Your task to perform on an android device: install app "Roku - Official Remote Control" Image 0: 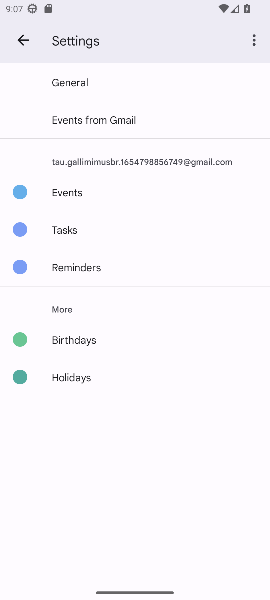
Step 0: press home button
Your task to perform on an android device: install app "Roku - Official Remote Control" Image 1: 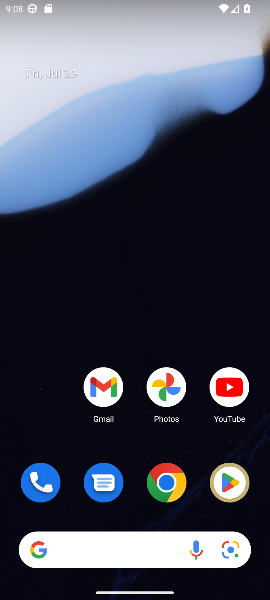
Step 1: click (226, 482)
Your task to perform on an android device: install app "Roku - Official Remote Control" Image 2: 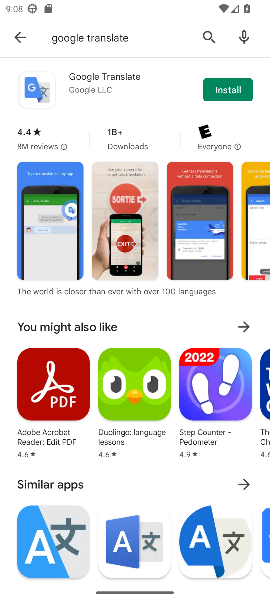
Step 2: click (206, 34)
Your task to perform on an android device: install app "Roku - Official Remote Control" Image 3: 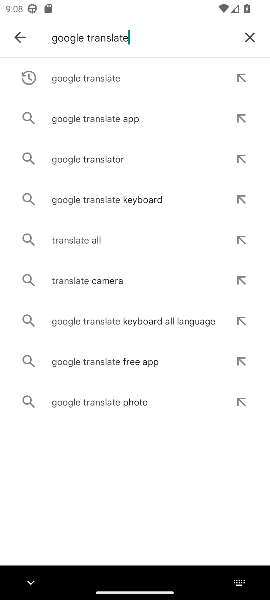
Step 3: click (253, 38)
Your task to perform on an android device: install app "Roku - Official Remote Control" Image 4: 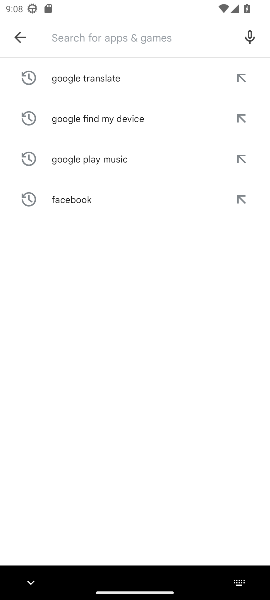
Step 4: type "Roku - Official Remote Control"
Your task to perform on an android device: install app "Roku - Official Remote Control" Image 5: 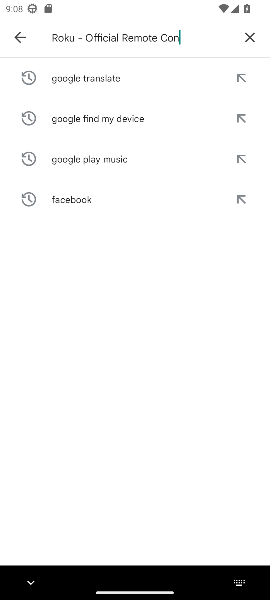
Step 5: type ""
Your task to perform on an android device: install app "Roku - Official Remote Control" Image 6: 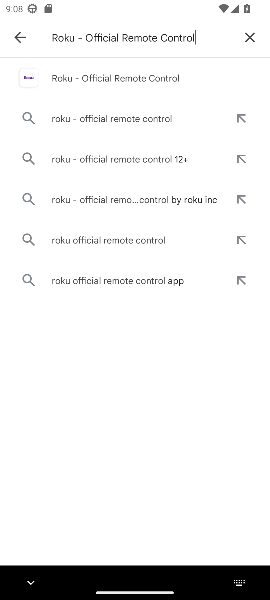
Step 6: click (148, 76)
Your task to perform on an android device: install app "Roku - Official Remote Control" Image 7: 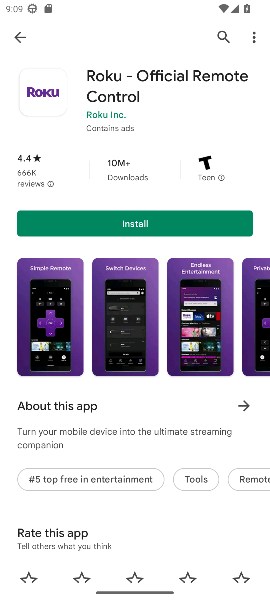
Step 7: click (126, 221)
Your task to perform on an android device: install app "Roku - Official Remote Control" Image 8: 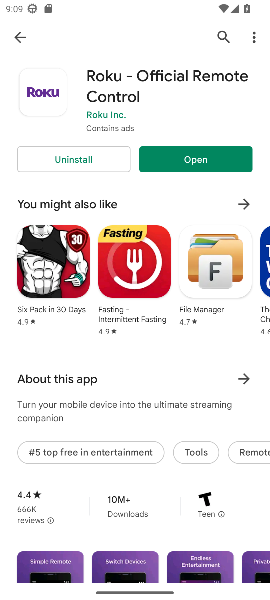
Step 8: task complete